Your task to perform on an android device: turn off notifications in google photos Image 0: 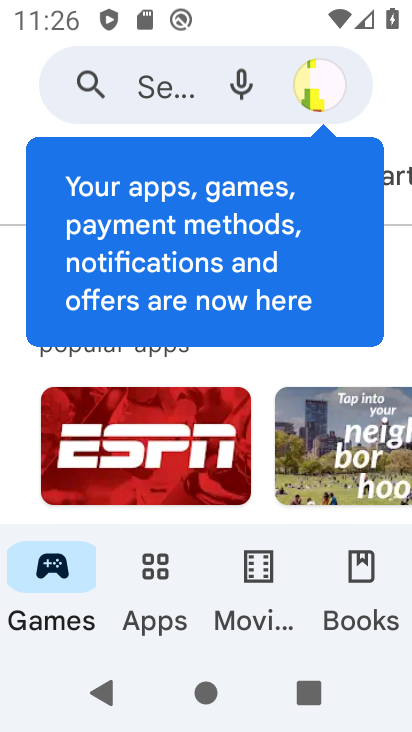
Step 0: press home button
Your task to perform on an android device: turn off notifications in google photos Image 1: 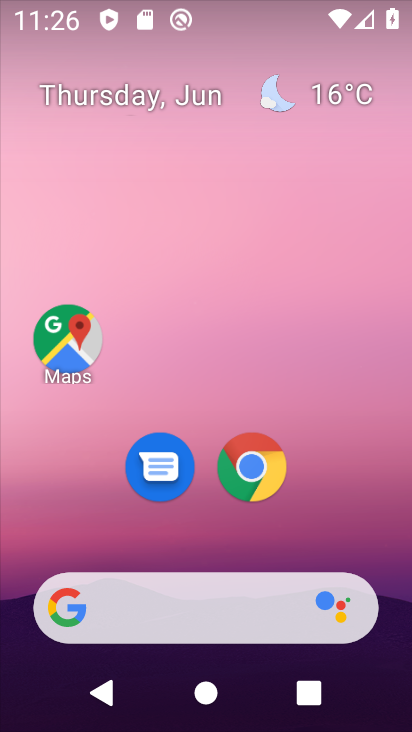
Step 1: drag from (400, 606) to (324, 27)
Your task to perform on an android device: turn off notifications in google photos Image 2: 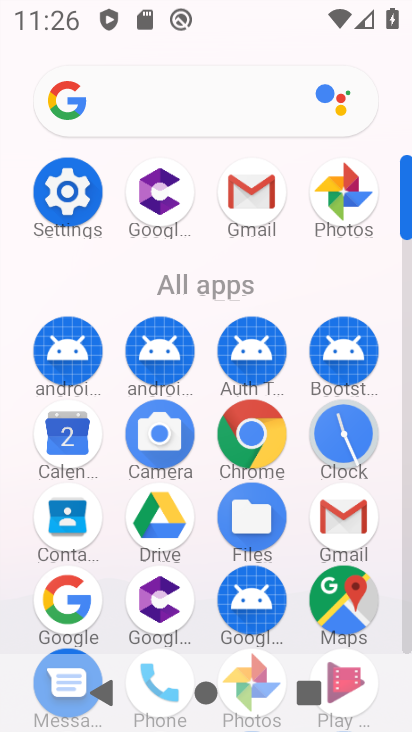
Step 2: click (403, 610)
Your task to perform on an android device: turn off notifications in google photos Image 3: 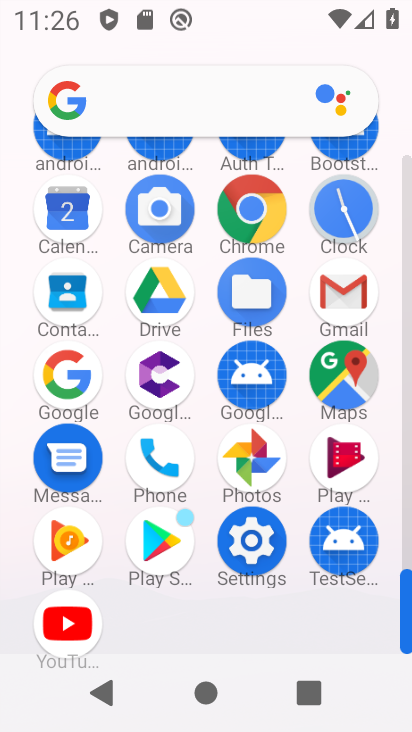
Step 3: click (250, 458)
Your task to perform on an android device: turn off notifications in google photos Image 4: 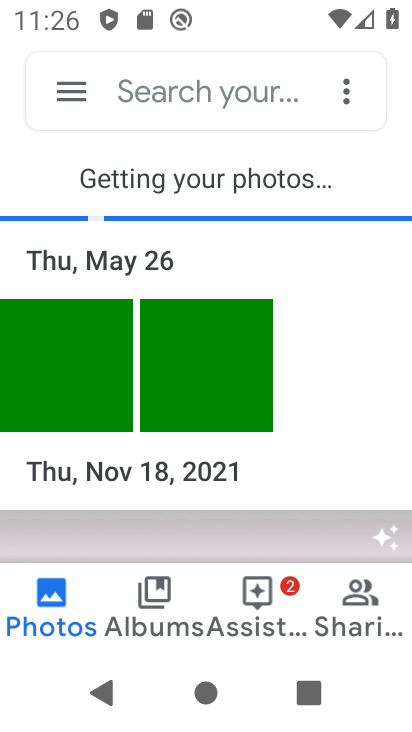
Step 4: click (69, 91)
Your task to perform on an android device: turn off notifications in google photos Image 5: 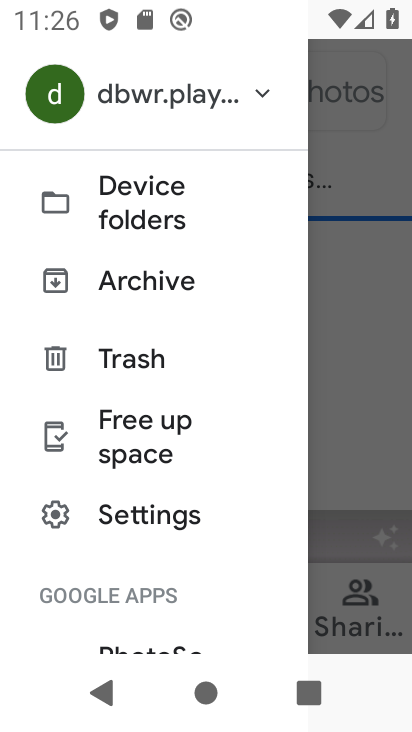
Step 5: click (153, 504)
Your task to perform on an android device: turn off notifications in google photos Image 6: 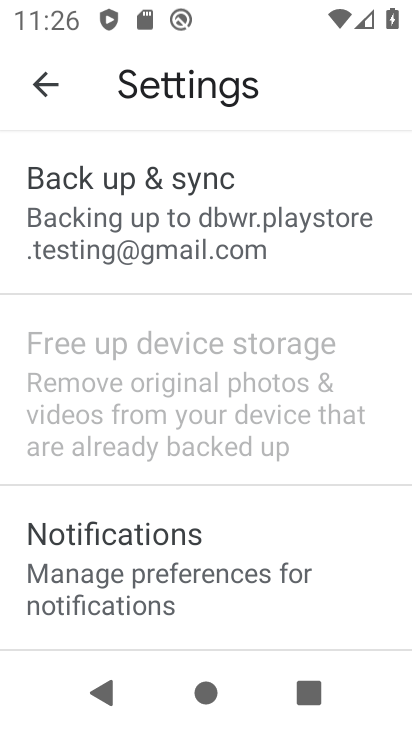
Step 6: click (138, 560)
Your task to perform on an android device: turn off notifications in google photos Image 7: 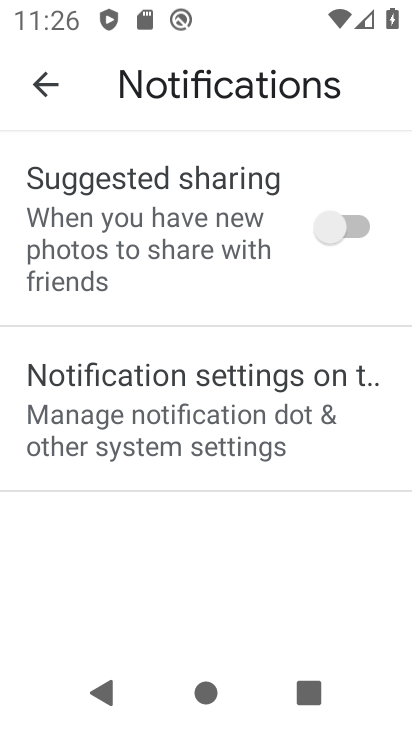
Step 7: click (128, 409)
Your task to perform on an android device: turn off notifications in google photos Image 8: 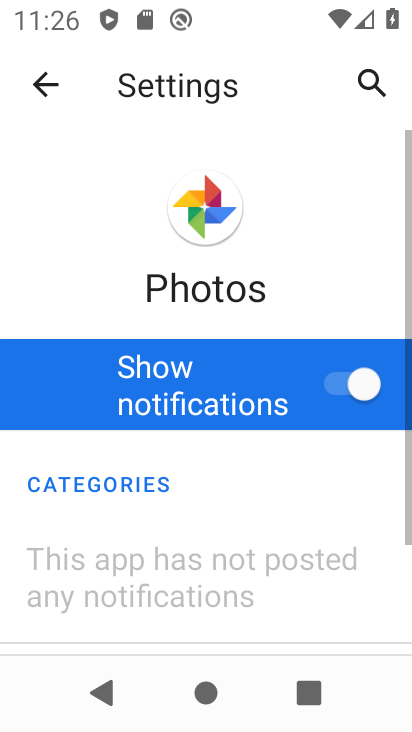
Step 8: drag from (291, 534) to (186, 33)
Your task to perform on an android device: turn off notifications in google photos Image 9: 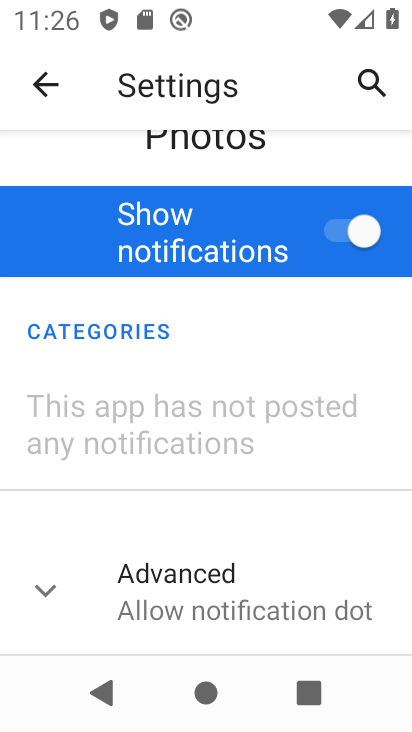
Step 9: click (332, 228)
Your task to perform on an android device: turn off notifications in google photos Image 10: 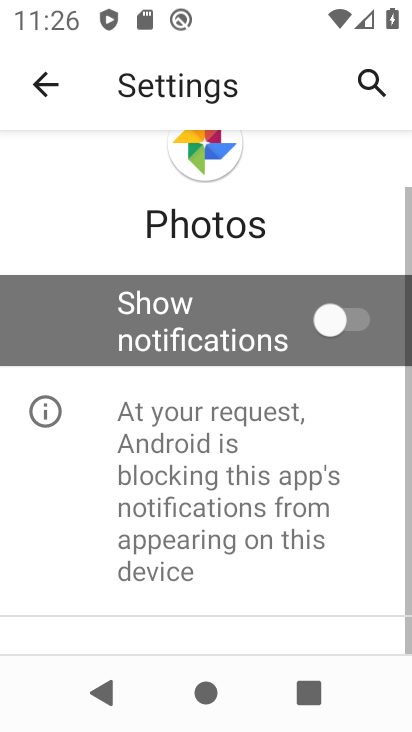
Step 10: task complete